Your task to perform on an android device: toggle improve location accuracy Image 0: 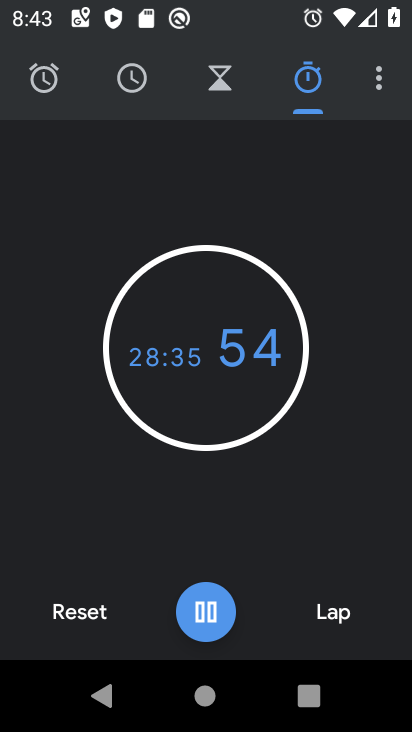
Step 0: press home button
Your task to perform on an android device: toggle improve location accuracy Image 1: 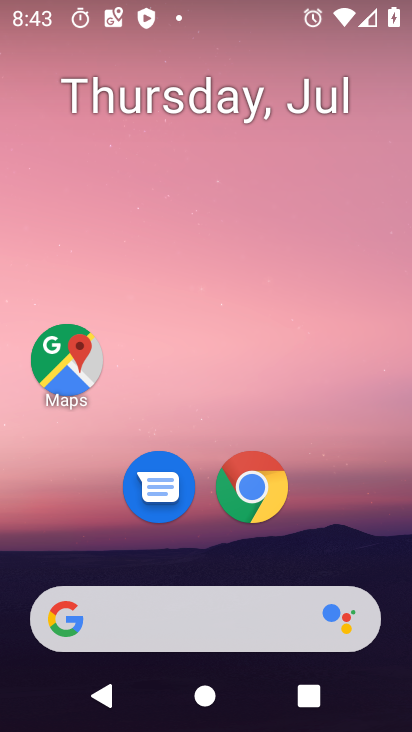
Step 1: drag from (162, 665) to (234, 56)
Your task to perform on an android device: toggle improve location accuracy Image 2: 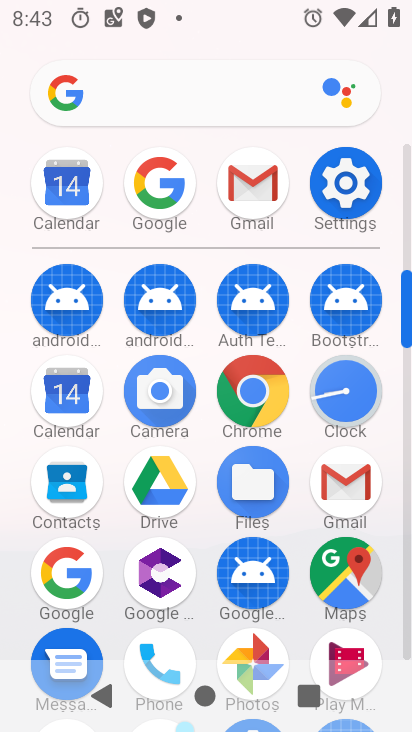
Step 2: click (346, 208)
Your task to perform on an android device: toggle improve location accuracy Image 3: 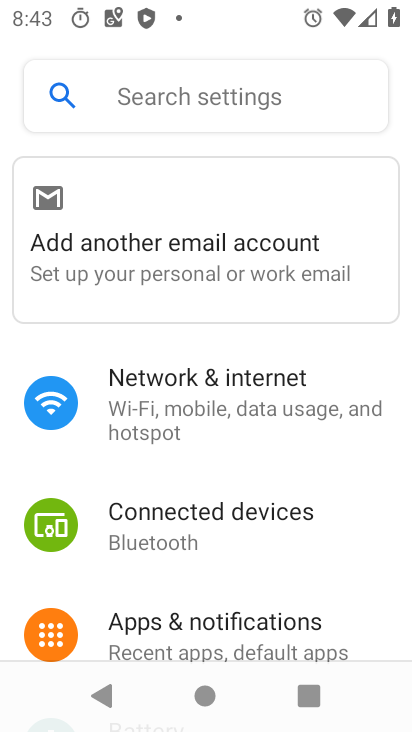
Step 3: drag from (259, 533) to (276, 210)
Your task to perform on an android device: toggle improve location accuracy Image 4: 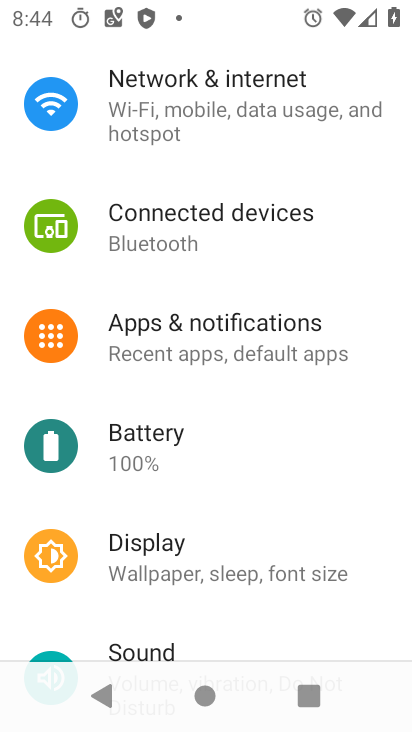
Step 4: drag from (217, 572) to (236, 339)
Your task to perform on an android device: toggle improve location accuracy Image 5: 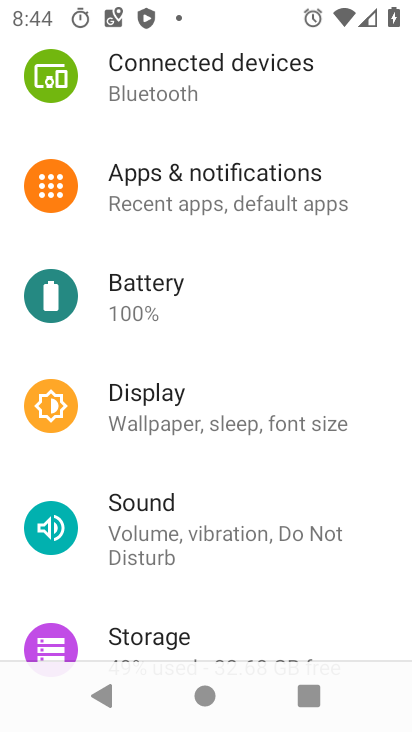
Step 5: drag from (205, 572) to (224, 335)
Your task to perform on an android device: toggle improve location accuracy Image 6: 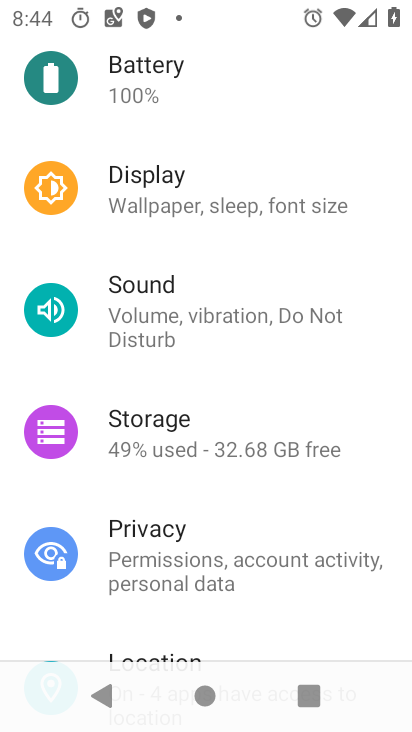
Step 6: drag from (188, 601) to (196, 443)
Your task to perform on an android device: toggle improve location accuracy Image 7: 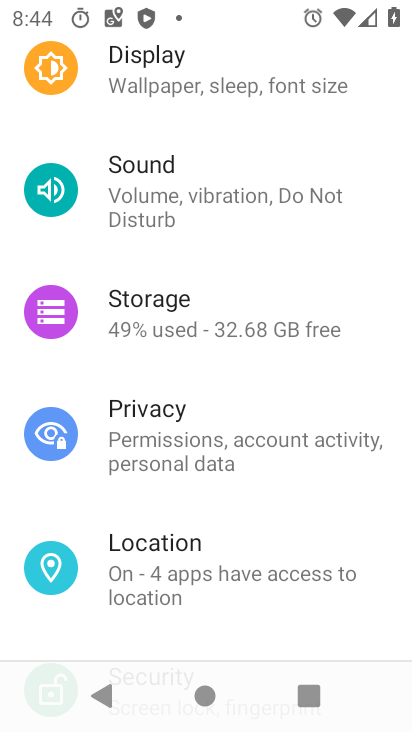
Step 7: click (195, 576)
Your task to perform on an android device: toggle improve location accuracy Image 8: 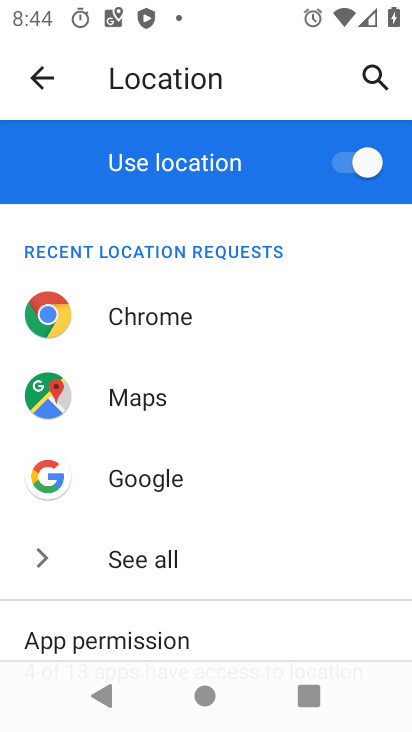
Step 8: drag from (201, 468) to (219, 221)
Your task to perform on an android device: toggle improve location accuracy Image 9: 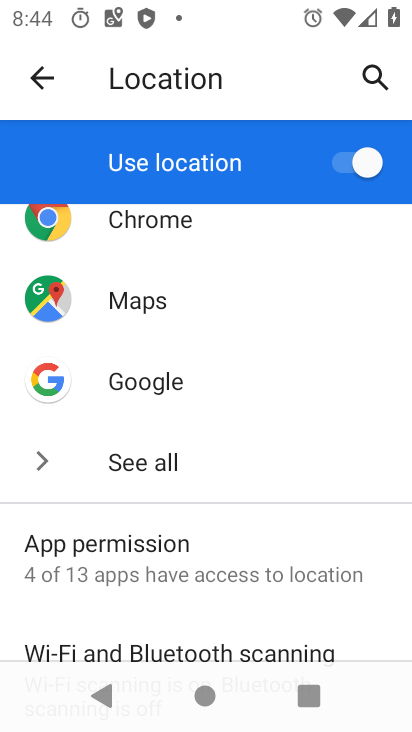
Step 9: drag from (191, 576) to (226, 373)
Your task to perform on an android device: toggle improve location accuracy Image 10: 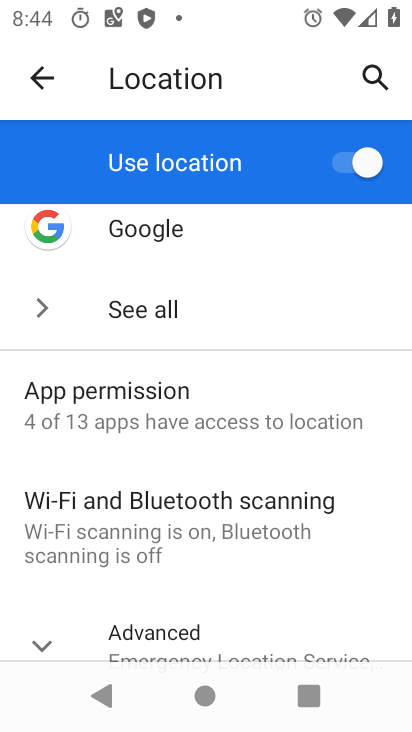
Step 10: click (231, 647)
Your task to perform on an android device: toggle improve location accuracy Image 11: 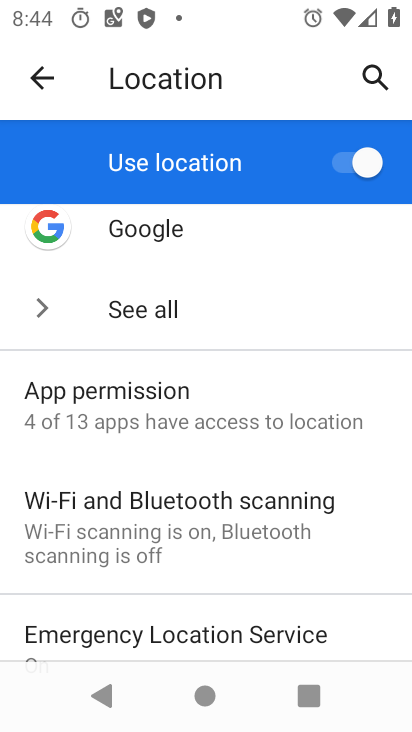
Step 11: drag from (254, 573) to (268, 349)
Your task to perform on an android device: toggle improve location accuracy Image 12: 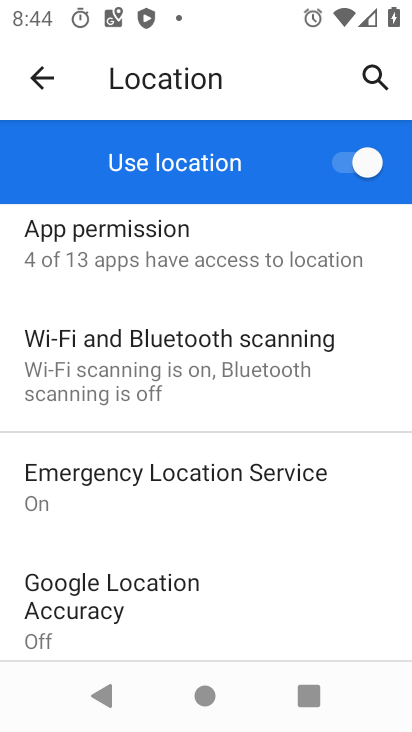
Step 12: click (135, 593)
Your task to perform on an android device: toggle improve location accuracy Image 13: 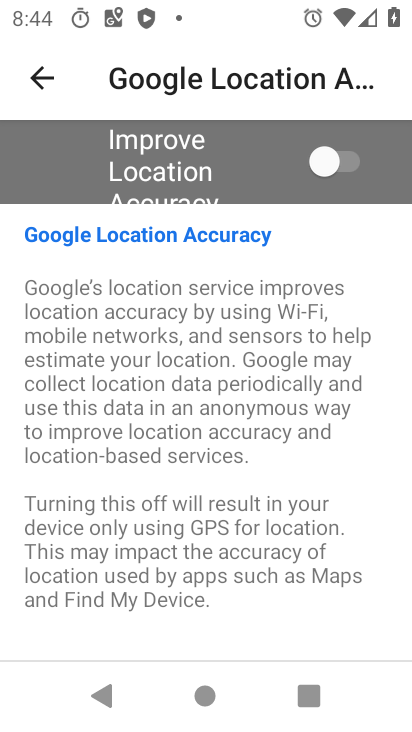
Step 13: click (338, 167)
Your task to perform on an android device: toggle improve location accuracy Image 14: 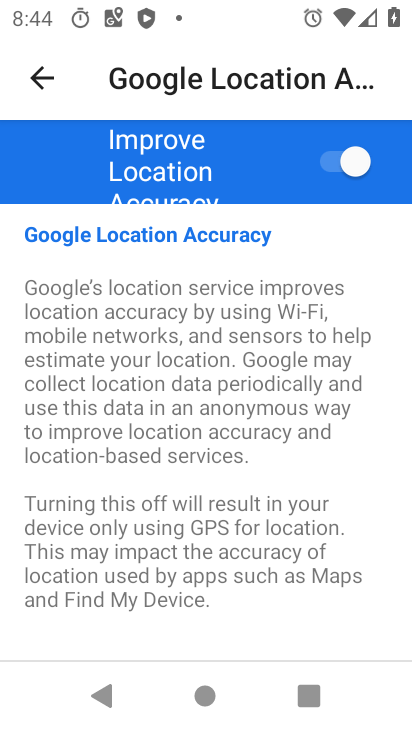
Step 14: task complete